Your task to perform on an android device: Add "logitech g933" to the cart on newegg Image 0: 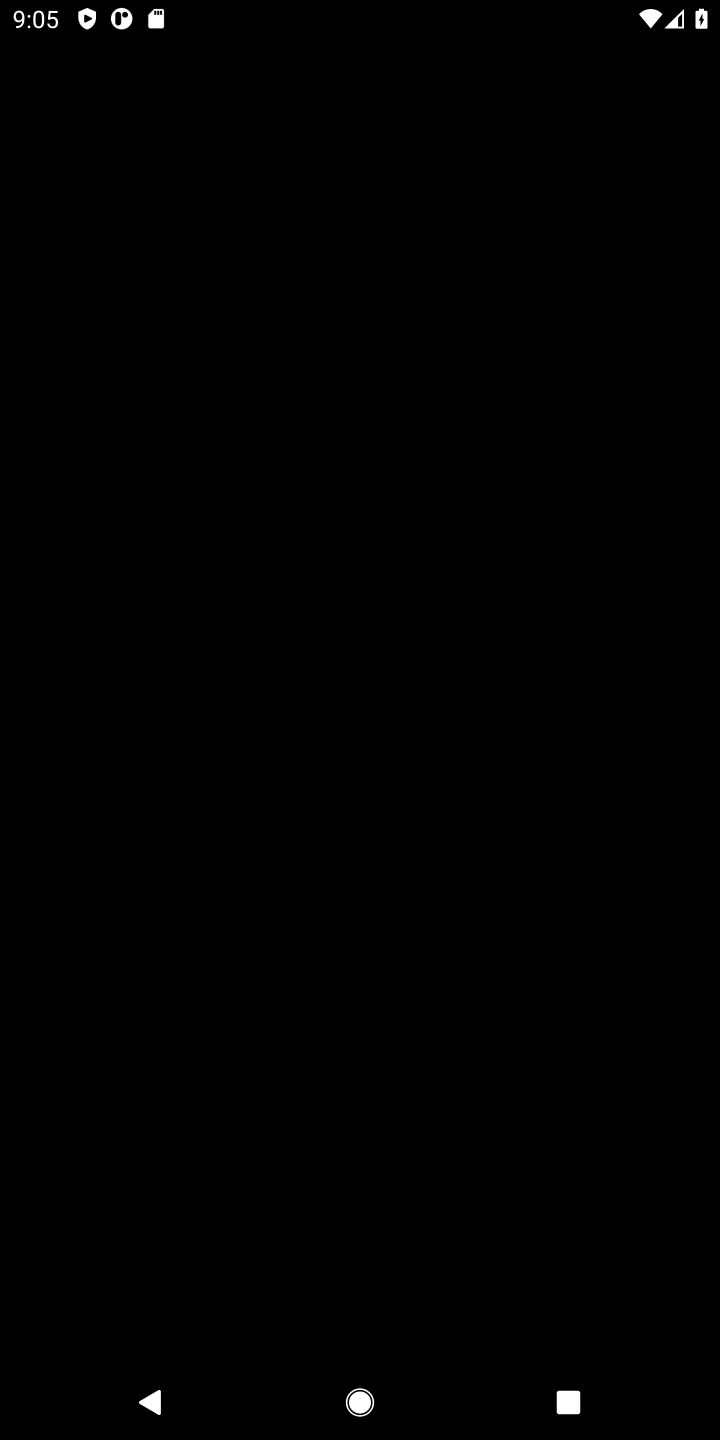
Step 0: press home button
Your task to perform on an android device: Add "logitech g933" to the cart on newegg Image 1: 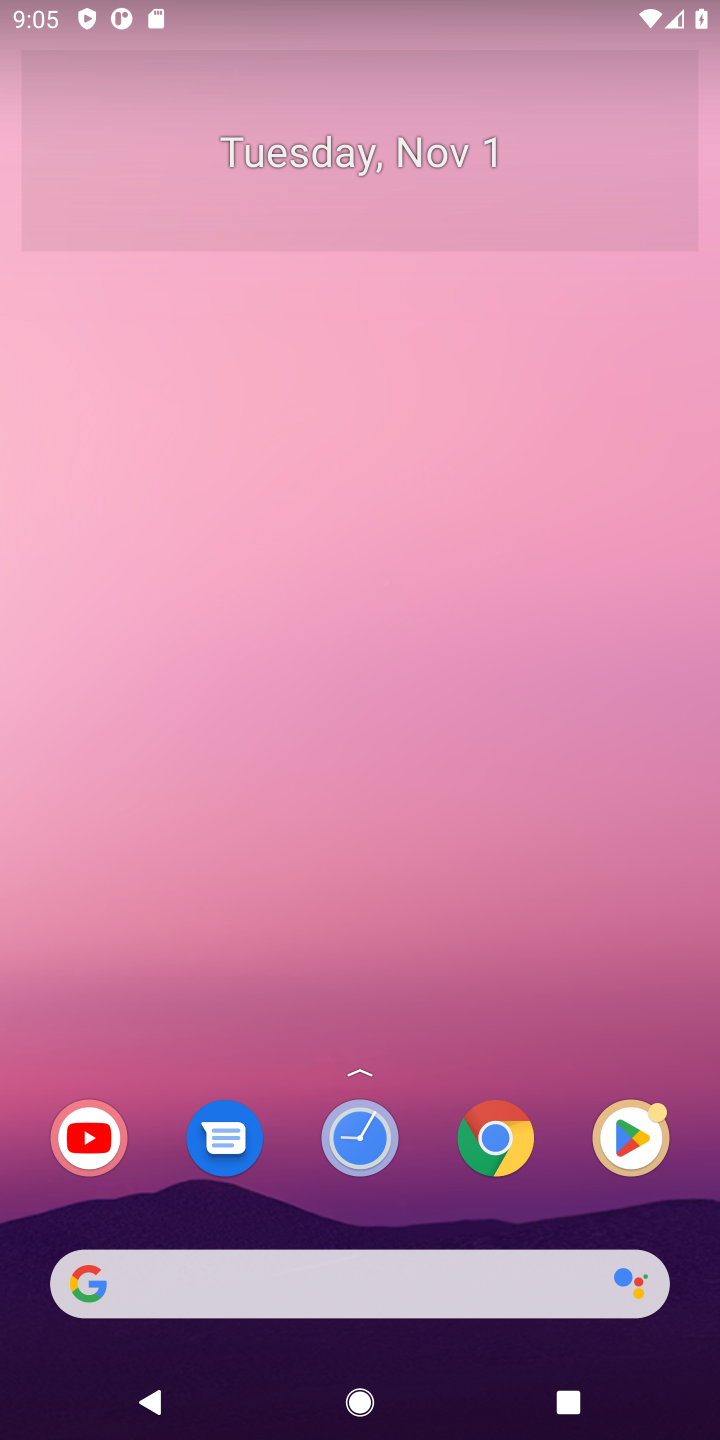
Step 1: click (496, 1136)
Your task to perform on an android device: Add "logitech g933" to the cart on newegg Image 2: 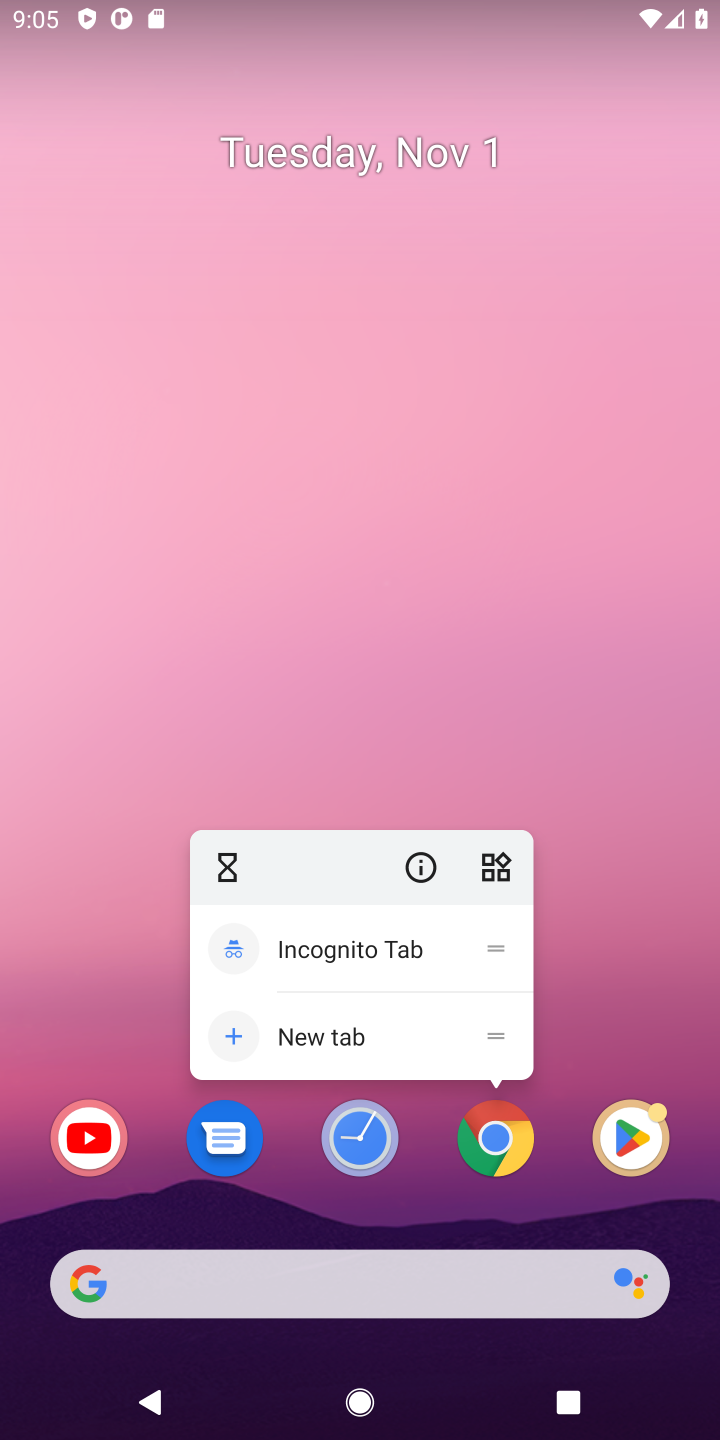
Step 2: click (495, 1144)
Your task to perform on an android device: Add "logitech g933" to the cart on newegg Image 3: 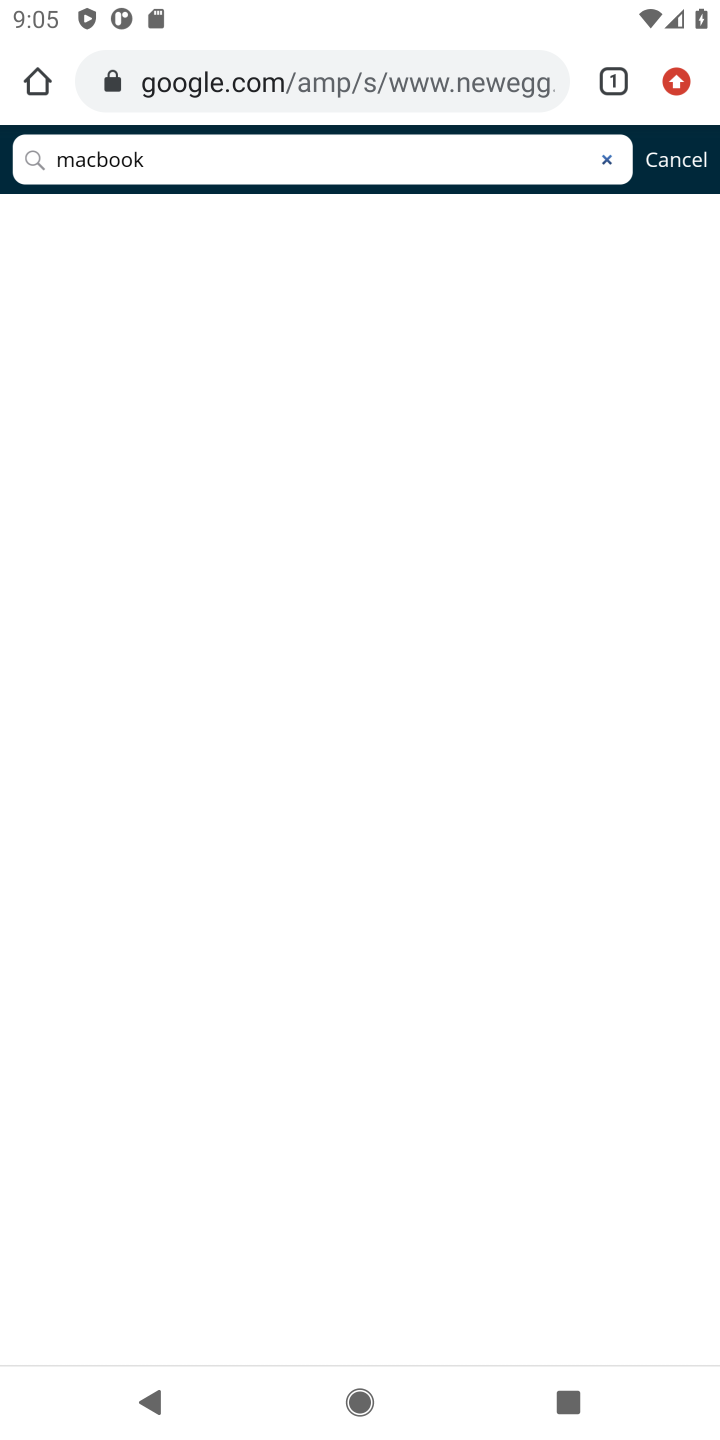
Step 3: click (456, 94)
Your task to perform on an android device: Add "logitech g933" to the cart on newegg Image 4: 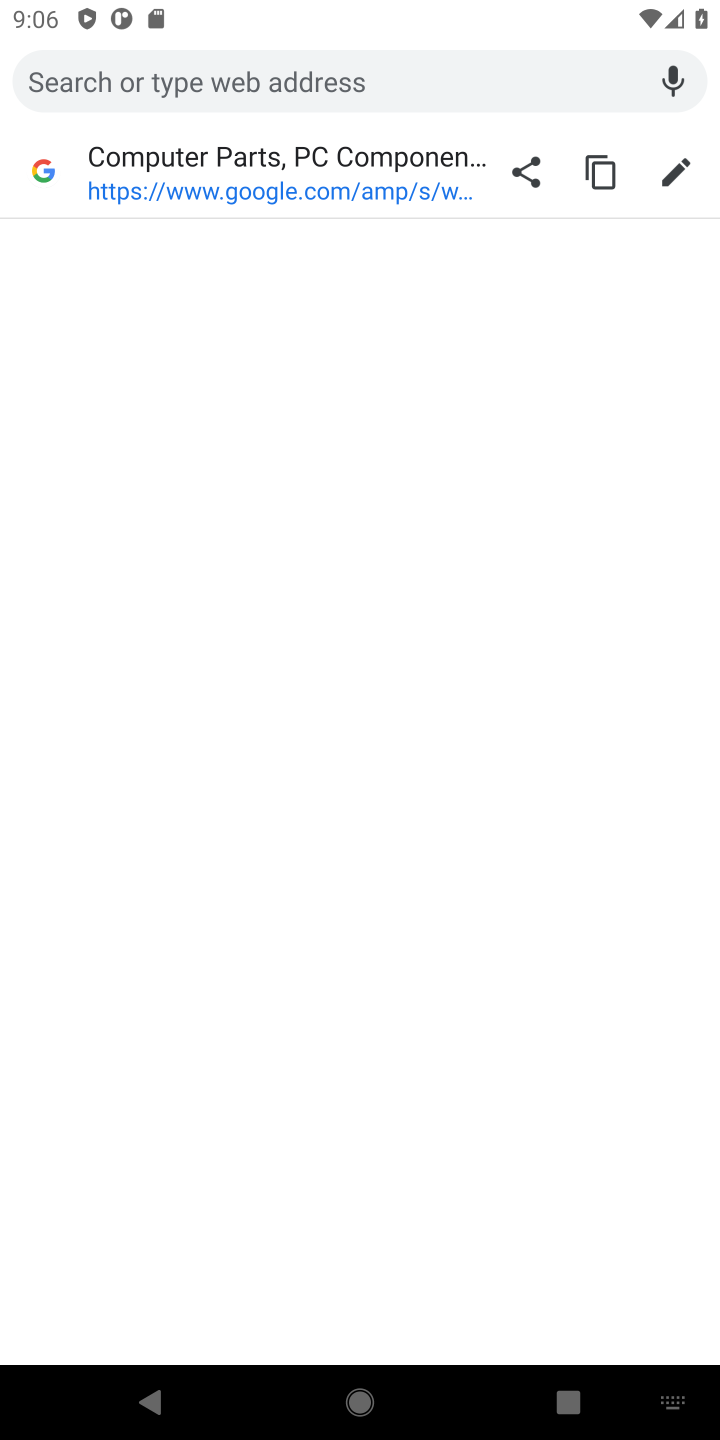
Step 4: type "newegg"
Your task to perform on an android device: Add "logitech g933" to the cart on newegg Image 5: 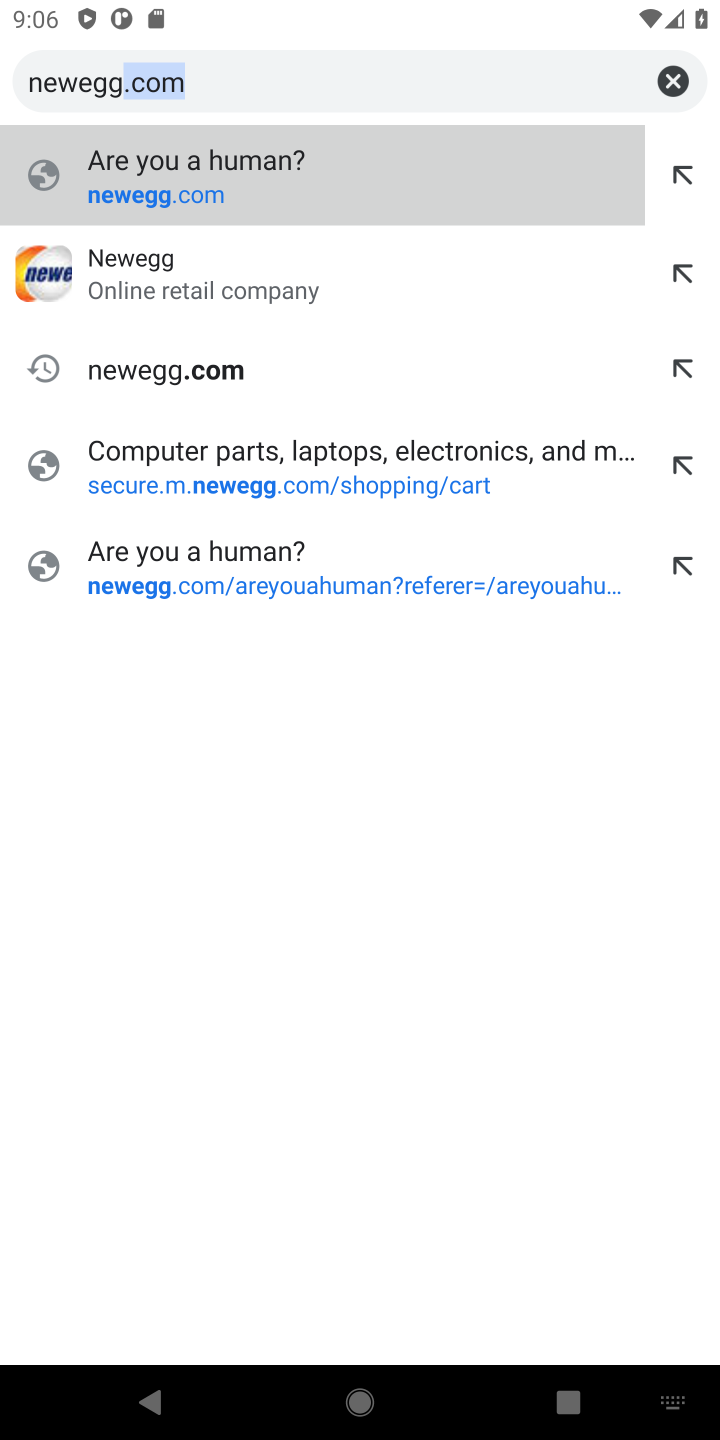
Step 5: click (205, 289)
Your task to perform on an android device: Add "logitech g933" to the cart on newegg Image 6: 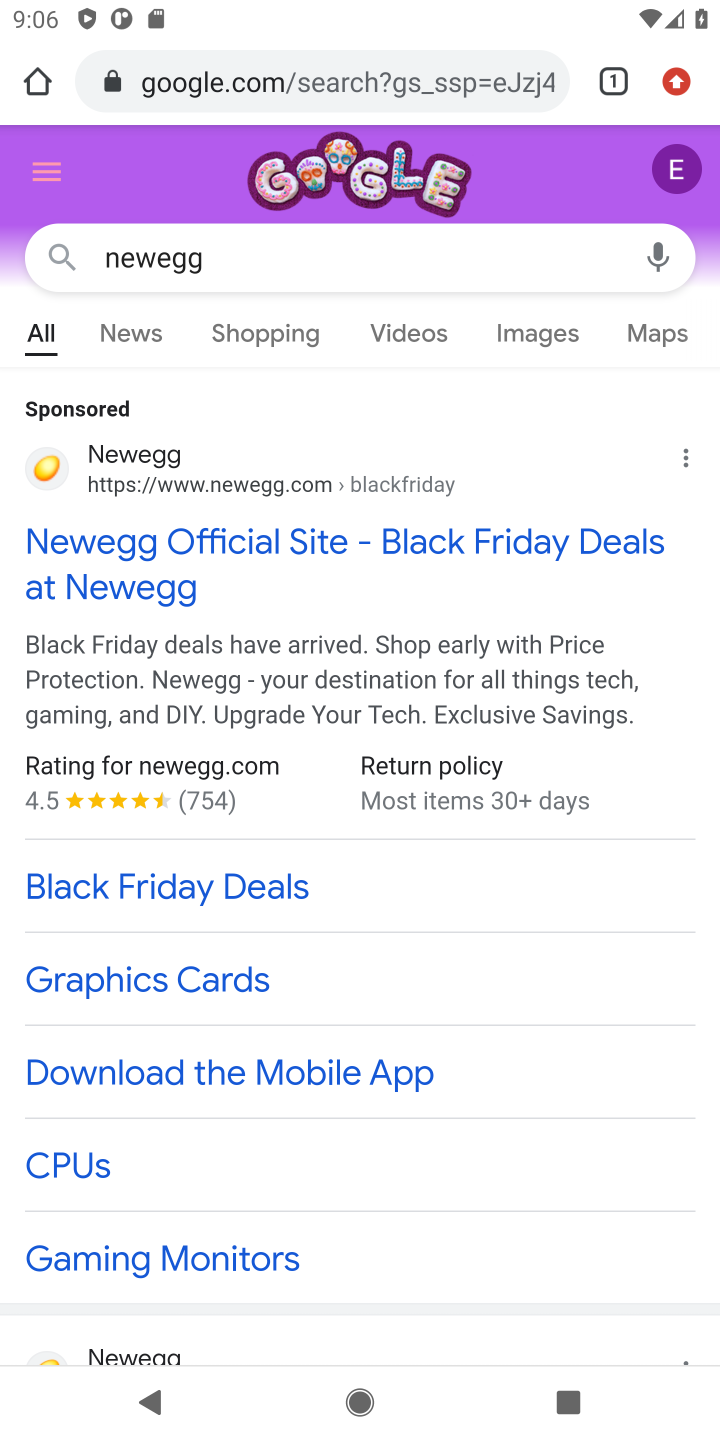
Step 6: drag from (361, 1180) to (365, 761)
Your task to perform on an android device: Add "logitech g933" to the cart on newegg Image 7: 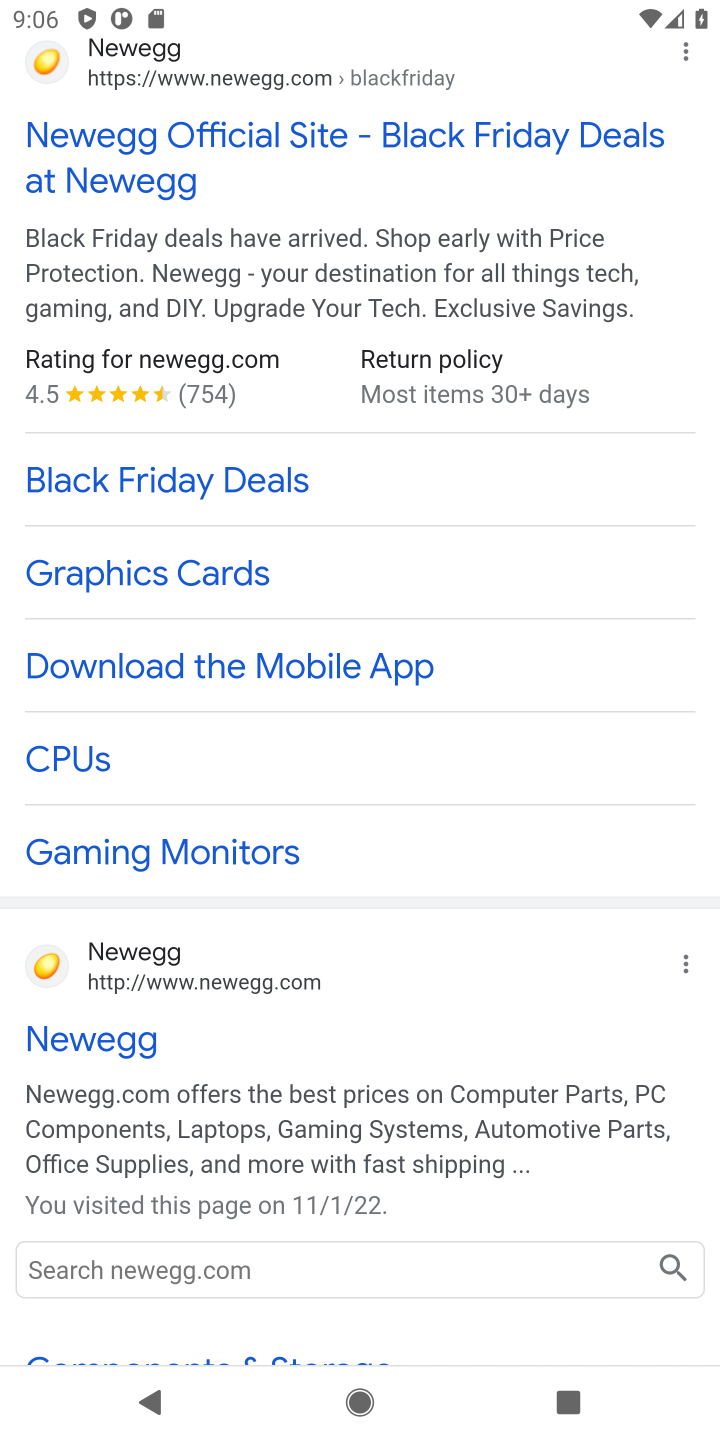
Step 7: click (130, 1062)
Your task to perform on an android device: Add "logitech g933" to the cart on newegg Image 8: 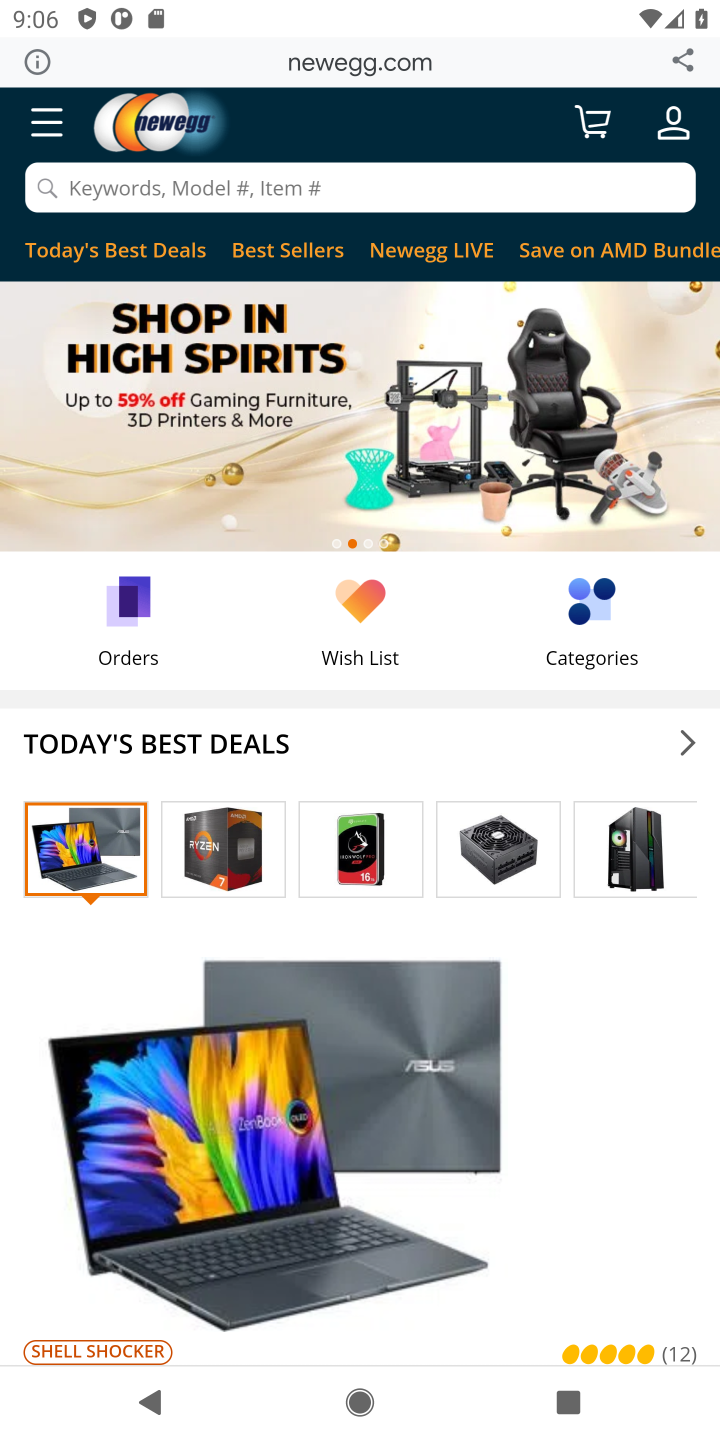
Step 8: click (341, 181)
Your task to perform on an android device: Add "logitech g933" to the cart on newegg Image 9: 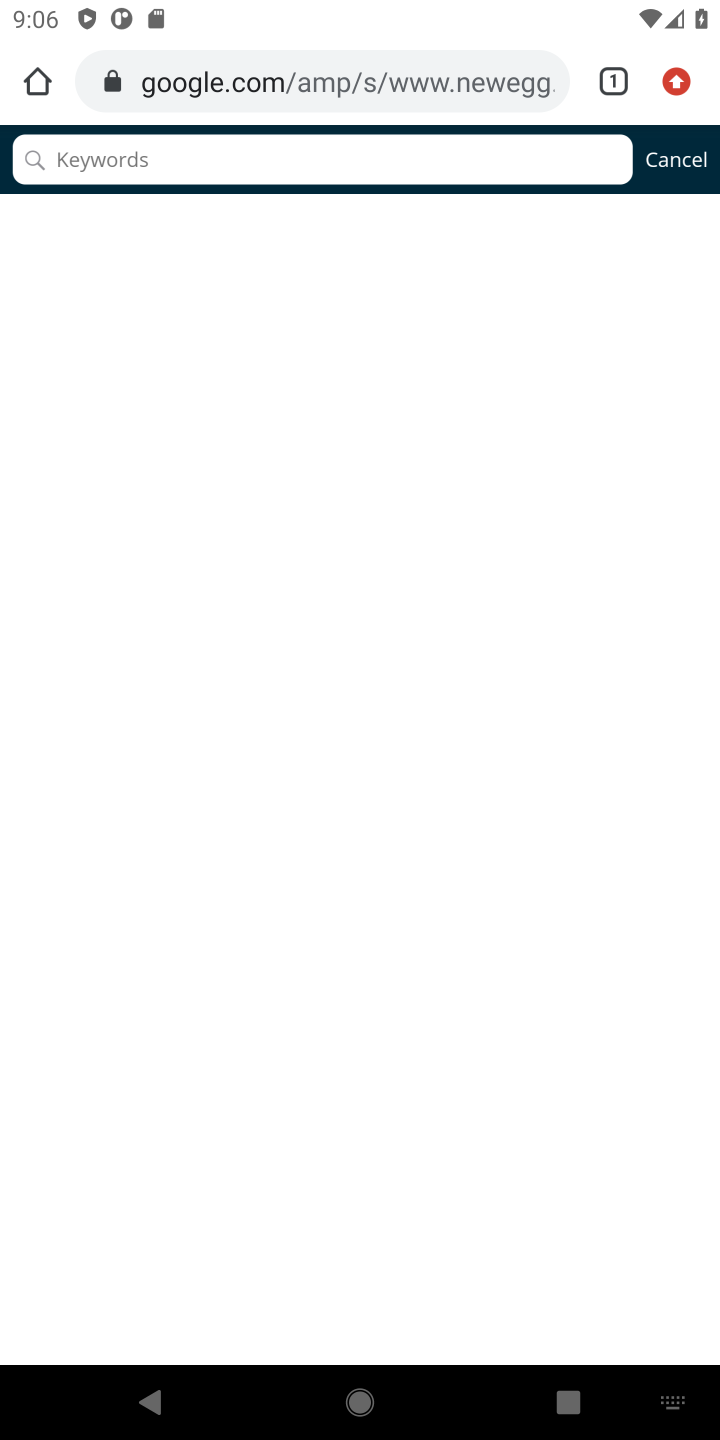
Step 9: type "logitech g933"
Your task to perform on an android device: Add "logitech g933" to the cart on newegg Image 10: 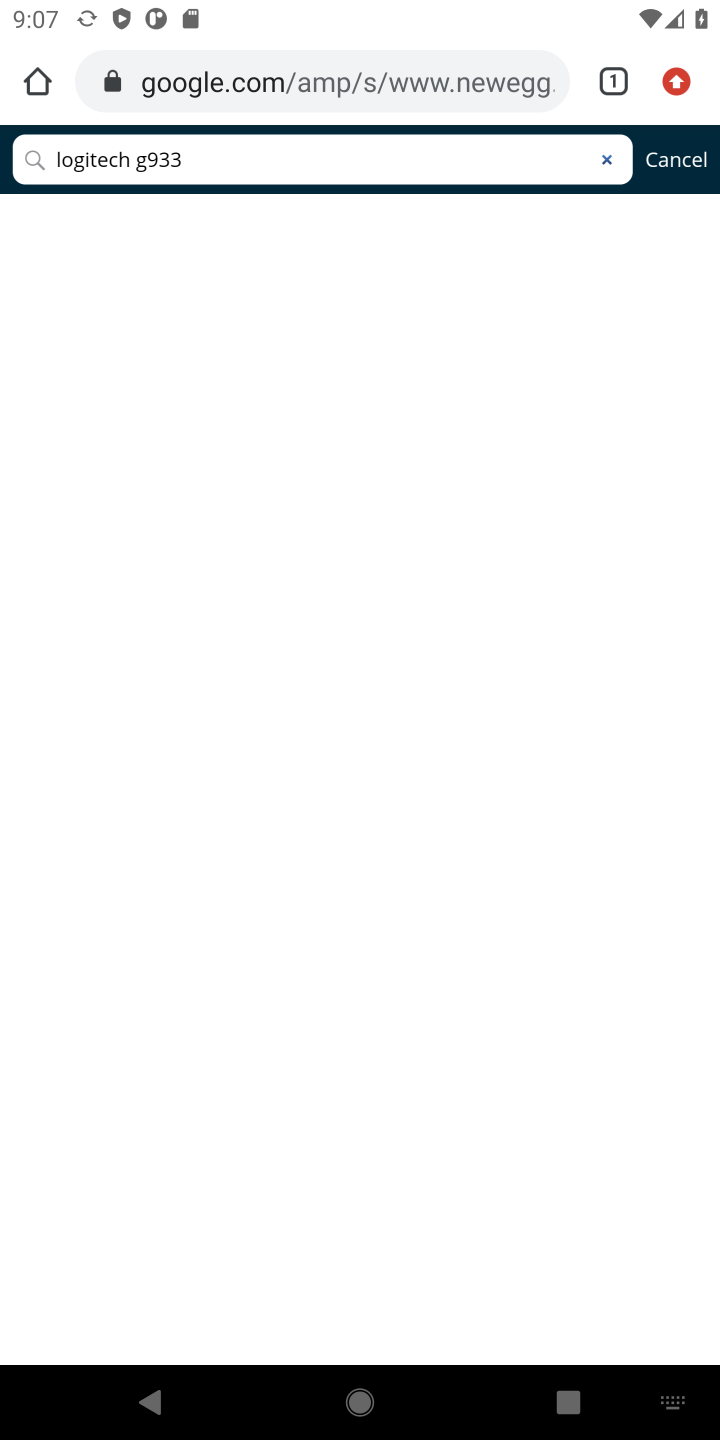
Step 10: task complete